Your task to perform on an android device: toggle javascript in the chrome app Image 0: 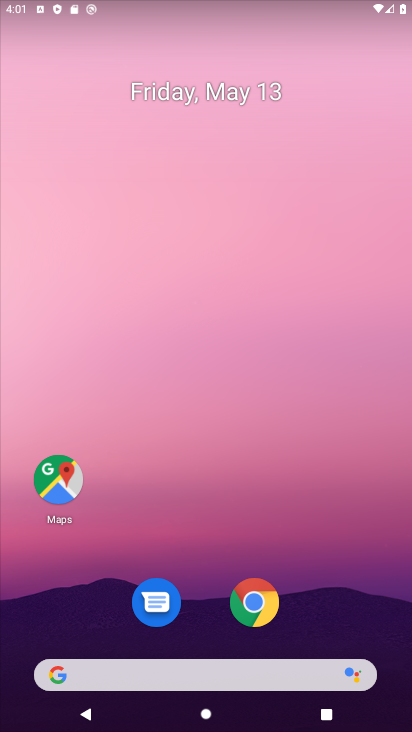
Step 0: click (165, 273)
Your task to perform on an android device: toggle javascript in the chrome app Image 1: 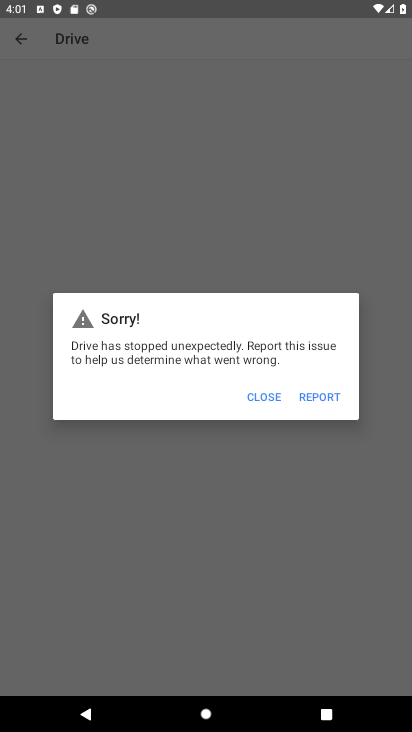
Step 1: press home button
Your task to perform on an android device: toggle javascript in the chrome app Image 2: 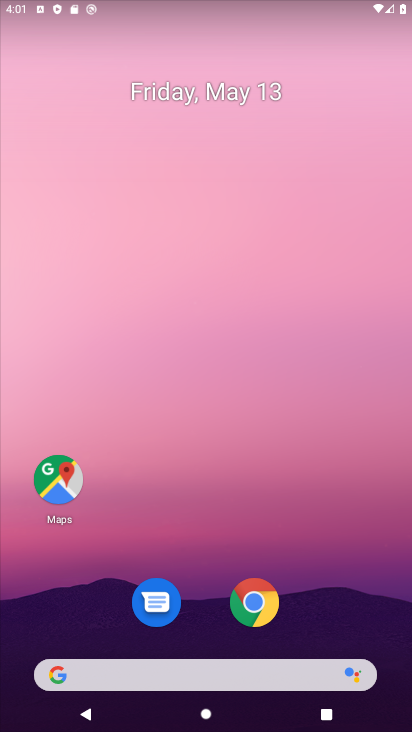
Step 2: click (244, 597)
Your task to perform on an android device: toggle javascript in the chrome app Image 3: 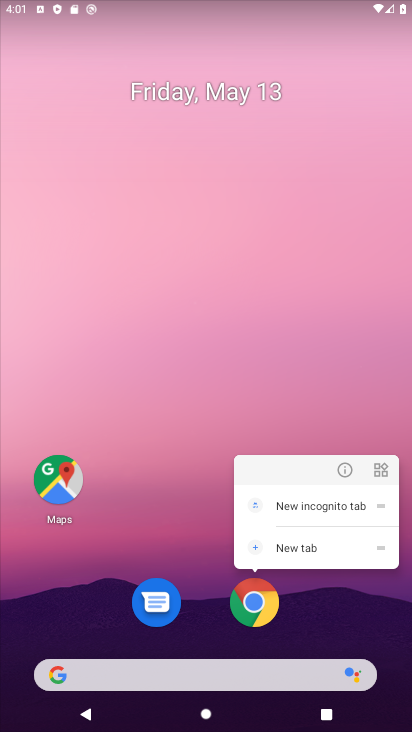
Step 3: click (262, 596)
Your task to perform on an android device: toggle javascript in the chrome app Image 4: 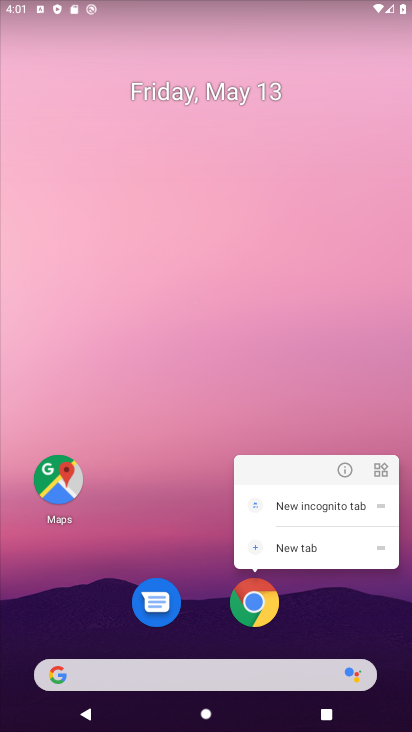
Step 4: click (261, 605)
Your task to perform on an android device: toggle javascript in the chrome app Image 5: 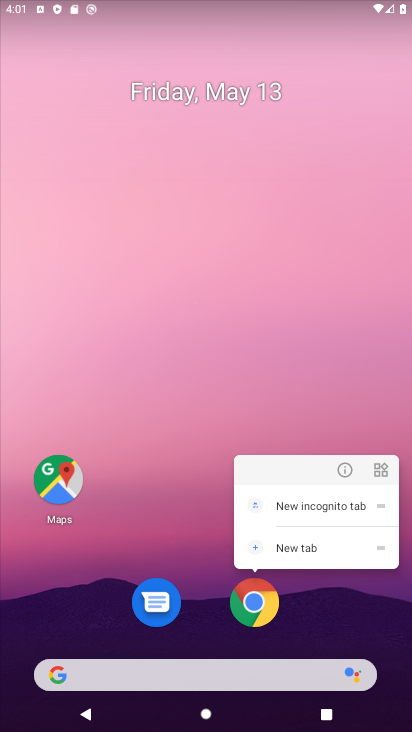
Step 5: click (260, 606)
Your task to perform on an android device: toggle javascript in the chrome app Image 6: 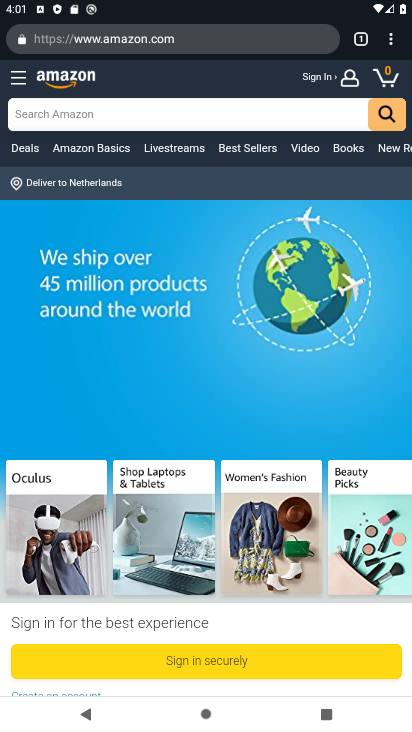
Step 6: click (393, 41)
Your task to perform on an android device: toggle javascript in the chrome app Image 7: 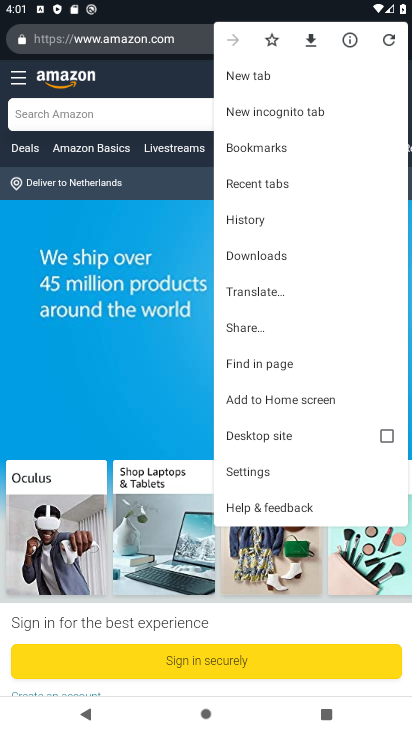
Step 7: click (258, 466)
Your task to perform on an android device: toggle javascript in the chrome app Image 8: 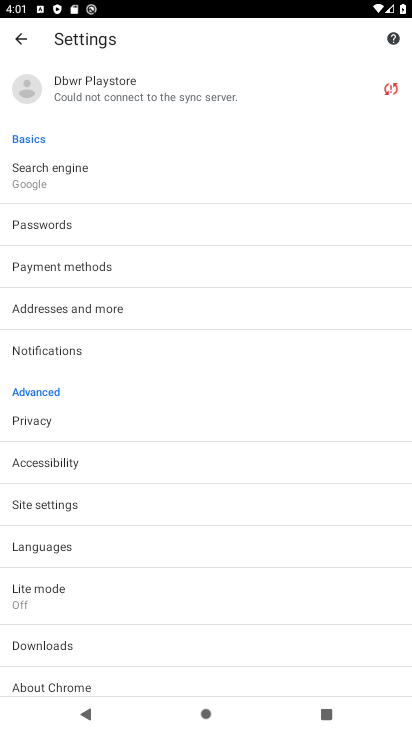
Step 8: click (27, 495)
Your task to perform on an android device: toggle javascript in the chrome app Image 9: 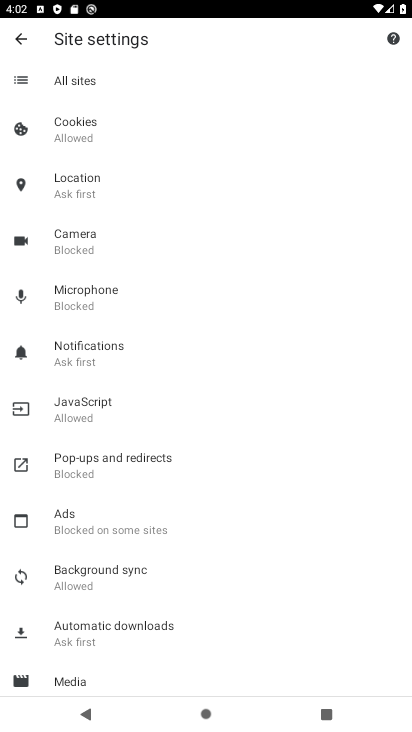
Step 9: click (94, 410)
Your task to perform on an android device: toggle javascript in the chrome app Image 10: 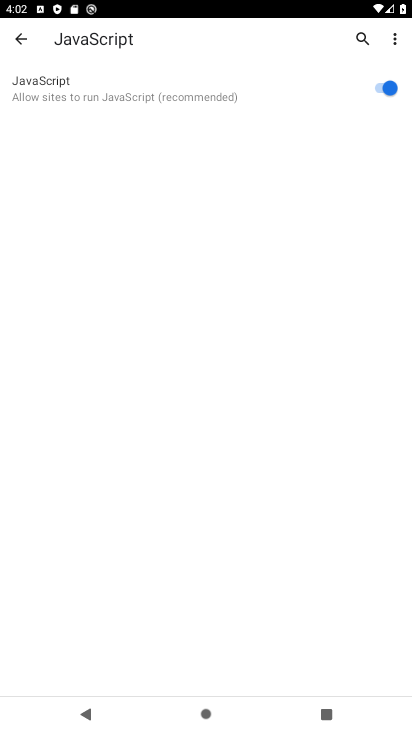
Step 10: click (375, 92)
Your task to perform on an android device: toggle javascript in the chrome app Image 11: 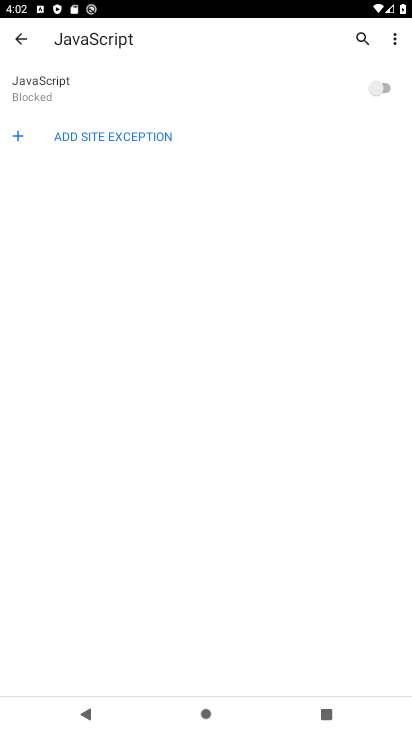
Step 11: task complete